Your task to perform on an android device: Open internet settings Image 0: 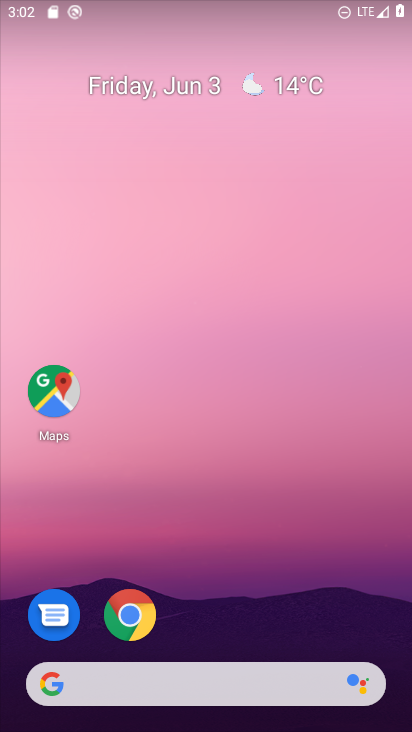
Step 0: drag from (138, 620) to (180, 184)
Your task to perform on an android device: Open internet settings Image 1: 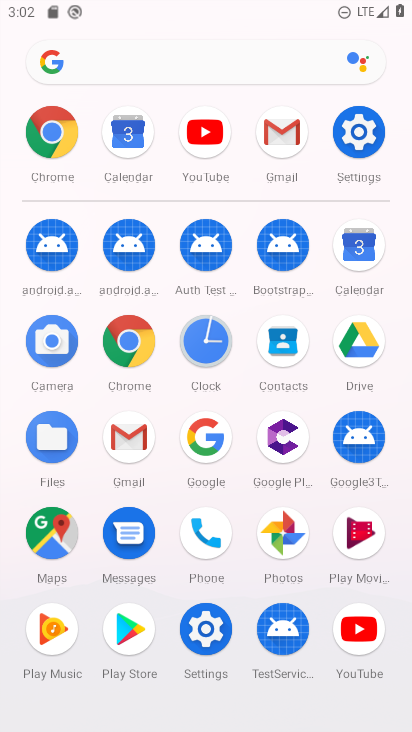
Step 1: click (368, 139)
Your task to perform on an android device: Open internet settings Image 2: 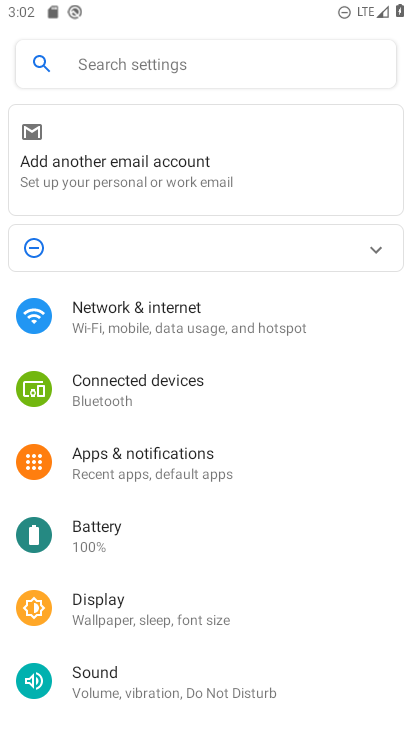
Step 2: click (193, 309)
Your task to perform on an android device: Open internet settings Image 3: 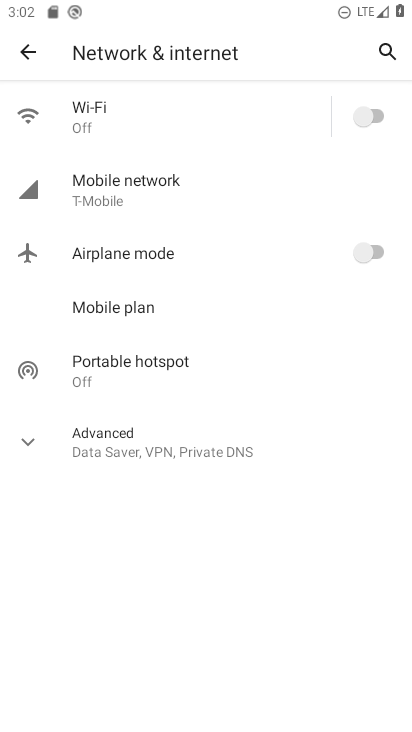
Step 3: task complete